Your task to perform on an android device: Go to internet settings Image 0: 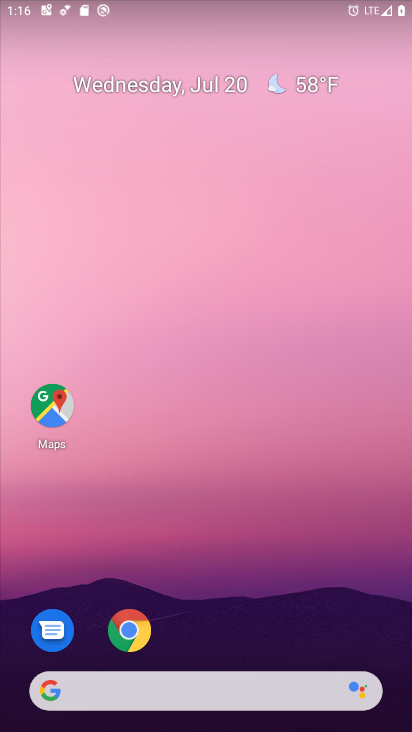
Step 0: drag from (226, 663) to (218, 82)
Your task to perform on an android device: Go to internet settings Image 1: 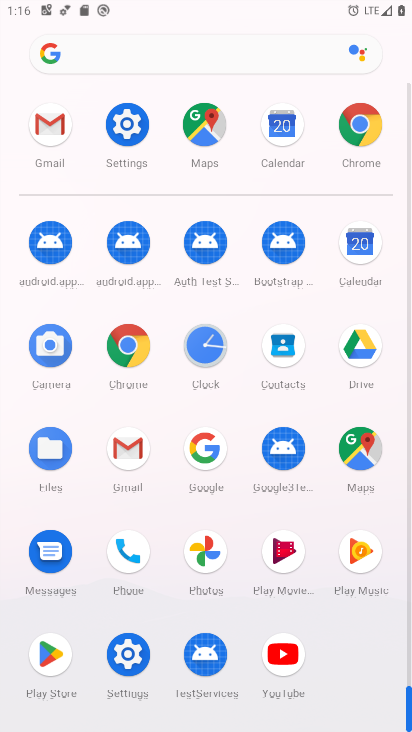
Step 1: click (122, 150)
Your task to perform on an android device: Go to internet settings Image 2: 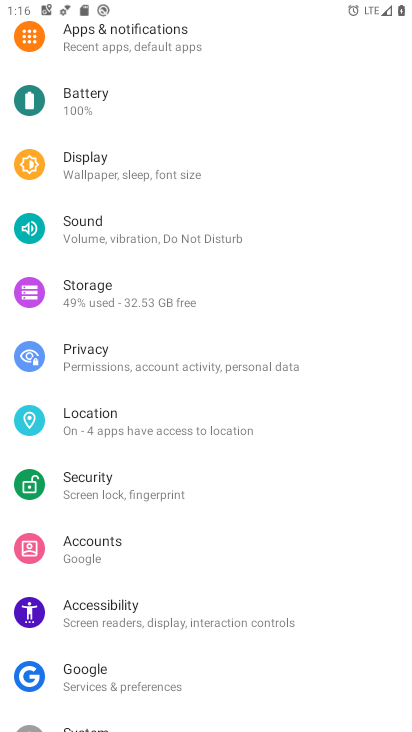
Step 2: drag from (155, 137) to (224, 514)
Your task to perform on an android device: Go to internet settings Image 3: 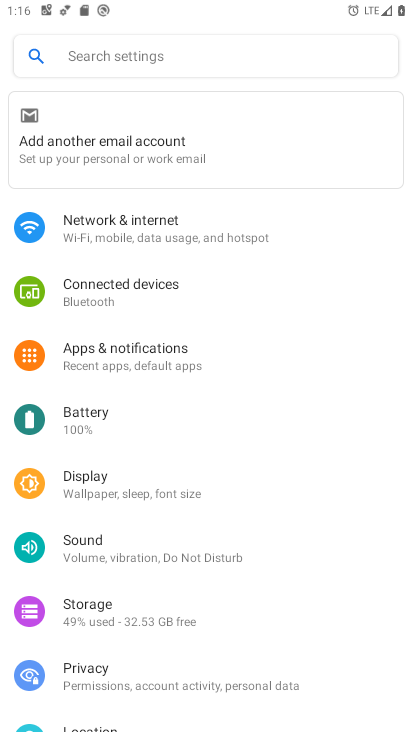
Step 3: click (183, 227)
Your task to perform on an android device: Go to internet settings Image 4: 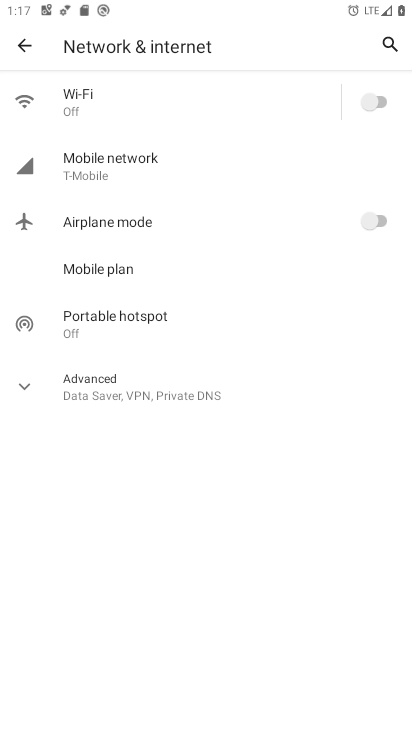
Step 4: click (176, 170)
Your task to perform on an android device: Go to internet settings Image 5: 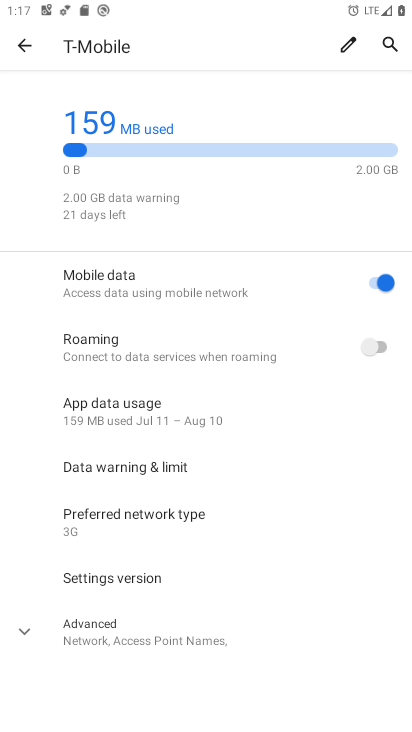
Step 5: task complete